Your task to perform on an android device: Open the map Image 0: 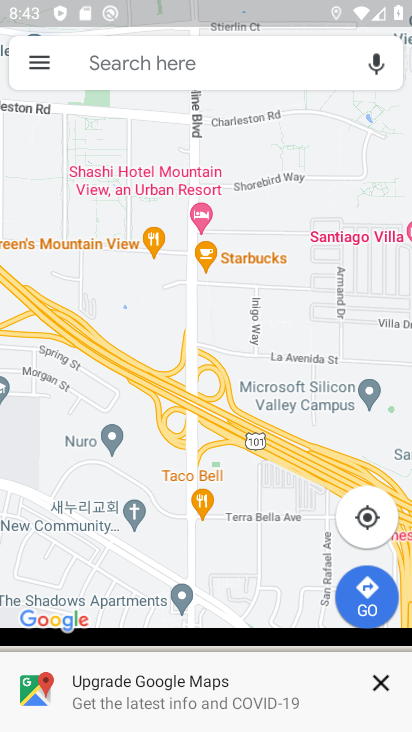
Step 0: drag from (203, 638) to (129, 197)
Your task to perform on an android device: Open the map Image 1: 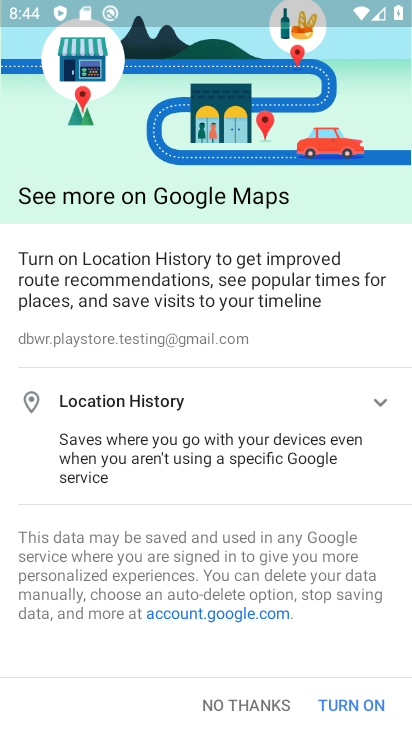
Step 1: click (349, 694)
Your task to perform on an android device: Open the map Image 2: 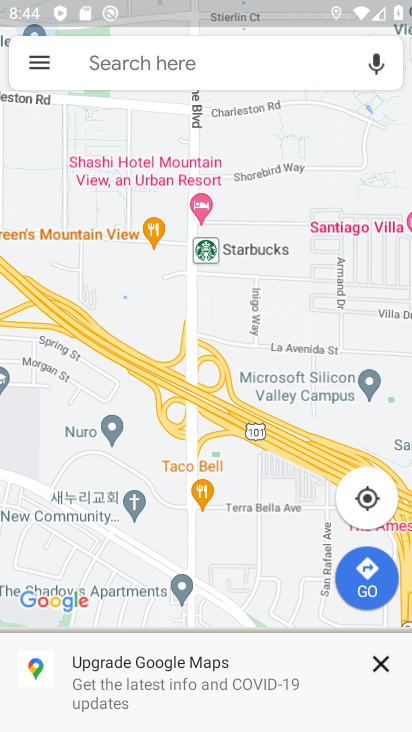
Step 2: click (380, 659)
Your task to perform on an android device: Open the map Image 3: 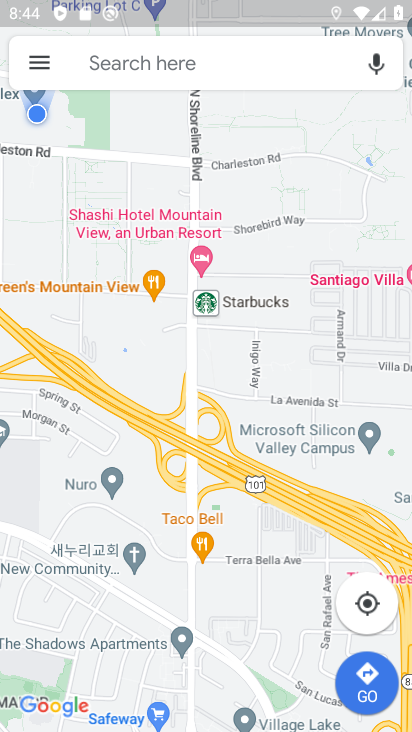
Step 3: task complete